Your task to perform on an android device: turn vacation reply on in the gmail app Image 0: 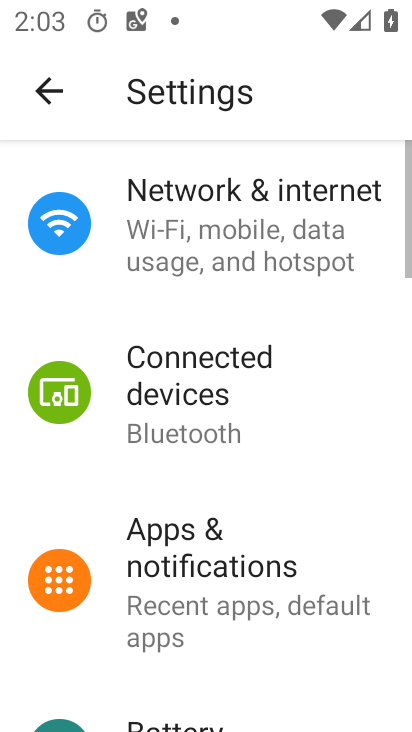
Step 0: press home button
Your task to perform on an android device: turn vacation reply on in the gmail app Image 1: 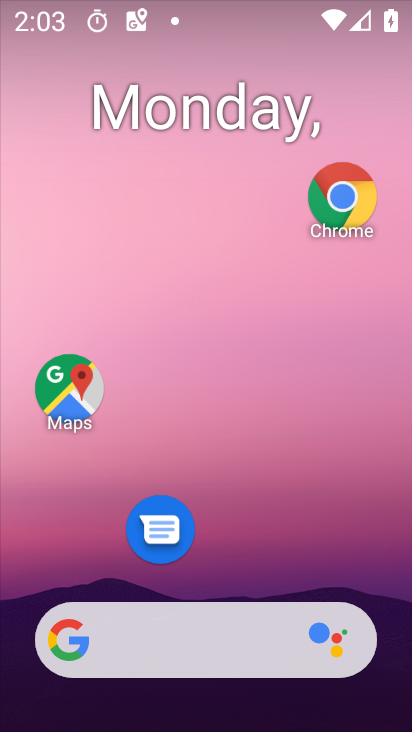
Step 1: drag from (227, 589) to (169, 25)
Your task to perform on an android device: turn vacation reply on in the gmail app Image 2: 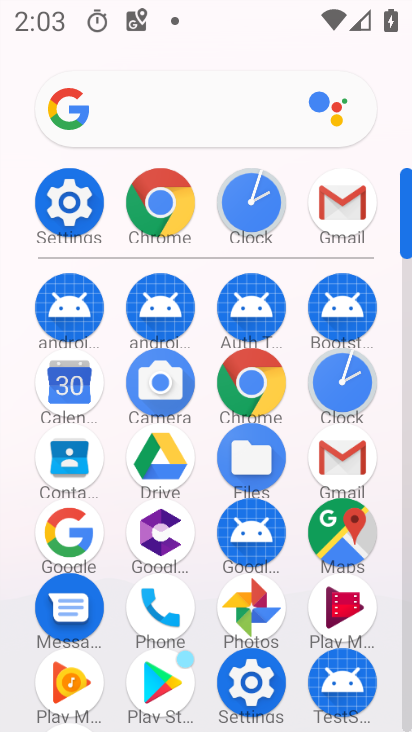
Step 2: click (313, 463)
Your task to perform on an android device: turn vacation reply on in the gmail app Image 3: 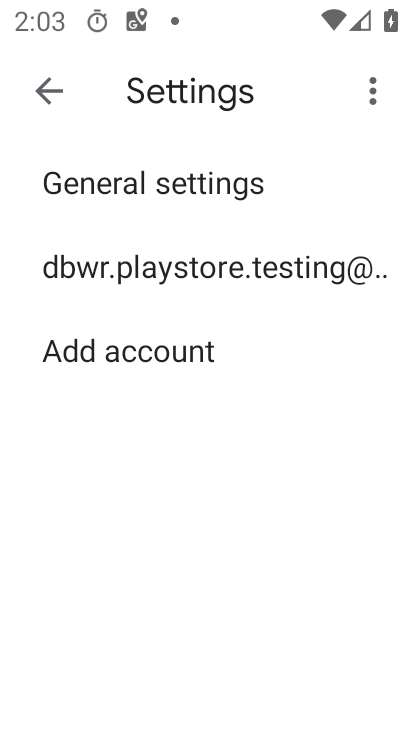
Step 3: click (154, 253)
Your task to perform on an android device: turn vacation reply on in the gmail app Image 4: 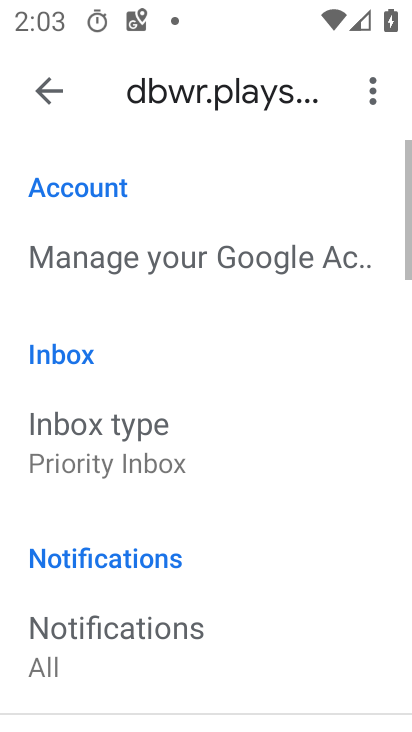
Step 4: drag from (205, 312) to (205, 34)
Your task to perform on an android device: turn vacation reply on in the gmail app Image 5: 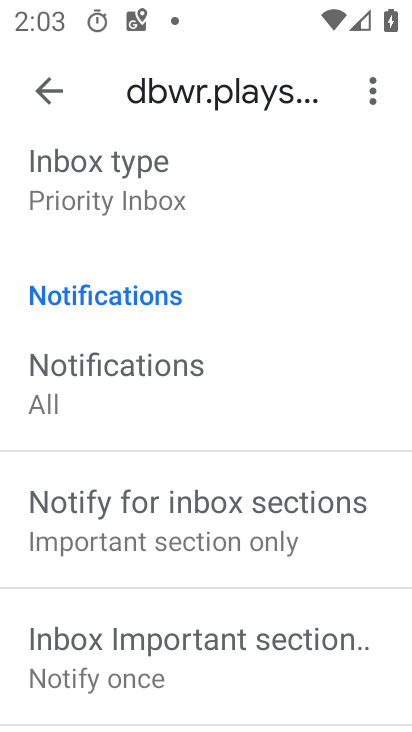
Step 5: drag from (149, 624) to (133, 175)
Your task to perform on an android device: turn vacation reply on in the gmail app Image 6: 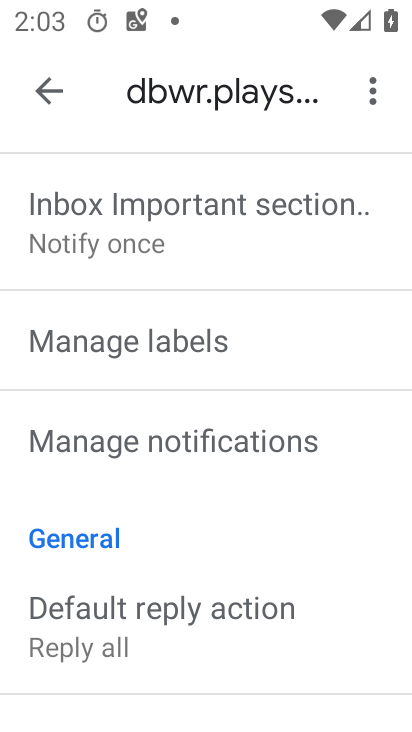
Step 6: drag from (198, 604) to (181, 110)
Your task to perform on an android device: turn vacation reply on in the gmail app Image 7: 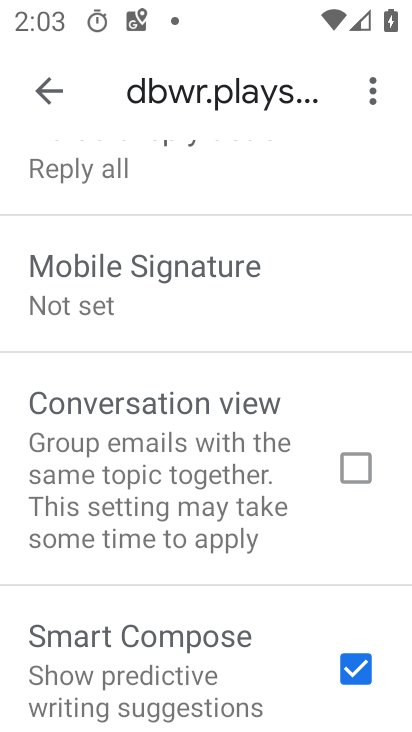
Step 7: drag from (187, 573) to (193, 121)
Your task to perform on an android device: turn vacation reply on in the gmail app Image 8: 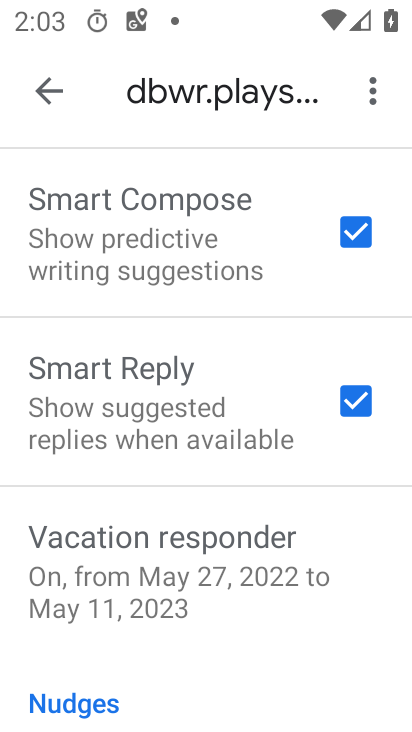
Step 8: click (210, 559)
Your task to perform on an android device: turn vacation reply on in the gmail app Image 9: 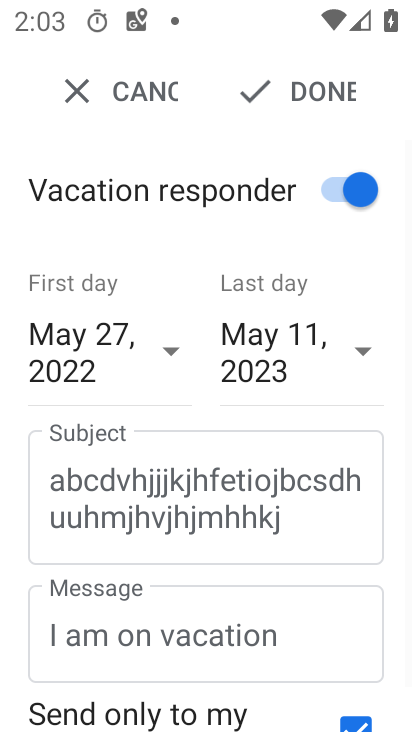
Step 9: click (317, 95)
Your task to perform on an android device: turn vacation reply on in the gmail app Image 10: 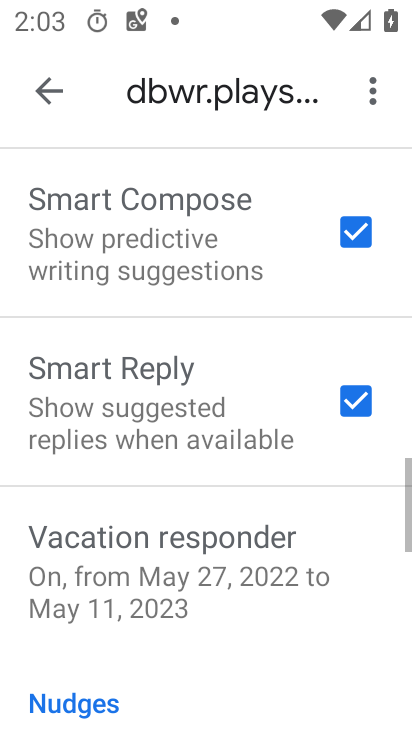
Step 10: task complete